Your task to perform on an android device: Open Chrome and go to settings Image 0: 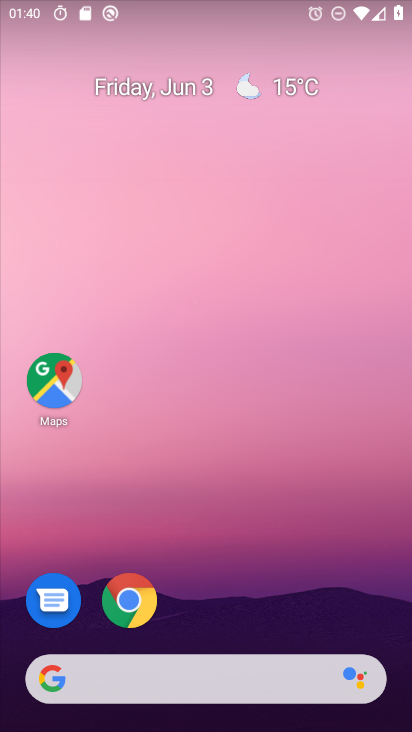
Step 0: click (132, 609)
Your task to perform on an android device: Open Chrome and go to settings Image 1: 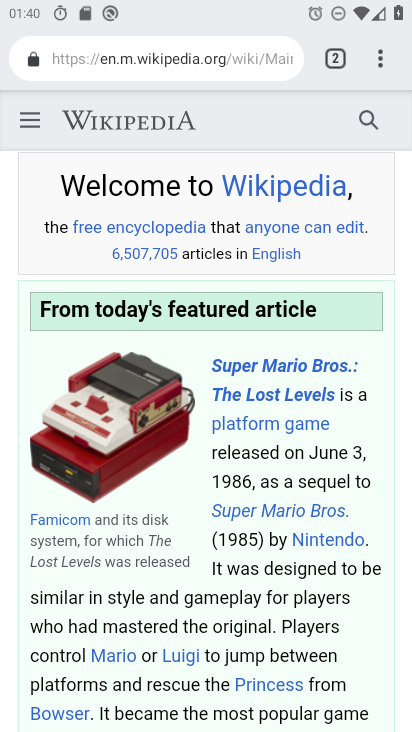
Step 1: click (375, 54)
Your task to perform on an android device: Open Chrome and go to settings Image 2: 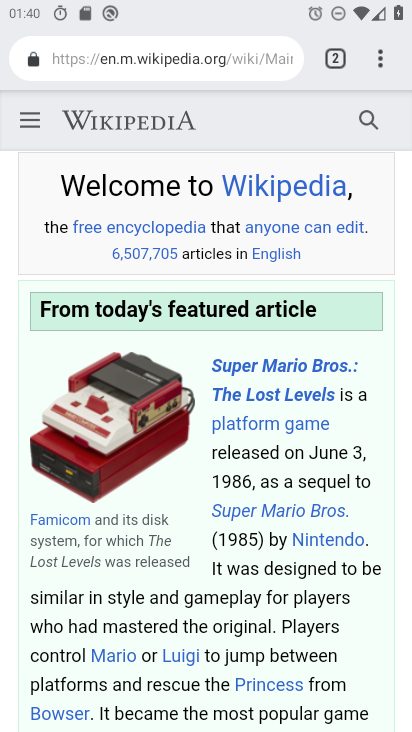
Step 2: click (378, 57)
Your task to perform on an android device: Open Chrome and go to settings Image 3: 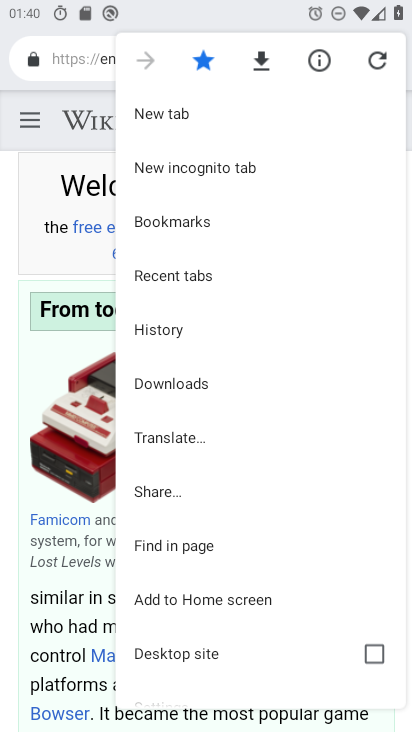
Step 3: drag from (197, 613) to (176, 291)
Your task to perform on an android device: Open Chrome and go to settings Image 4: 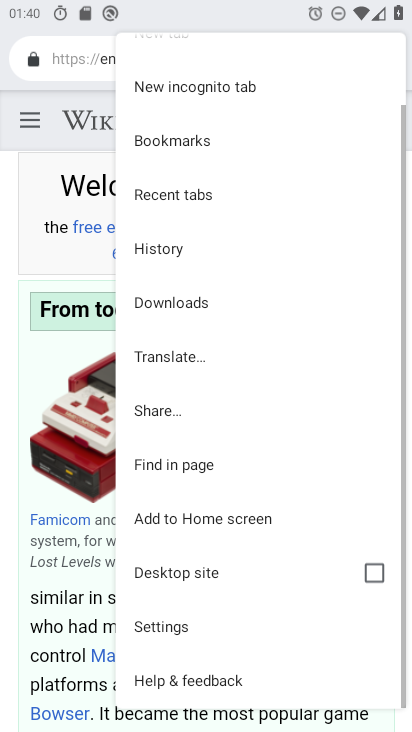
Step 4: click (147, 635)
Your task to perform on an android device: Open Chrome and go to settings Image 5: 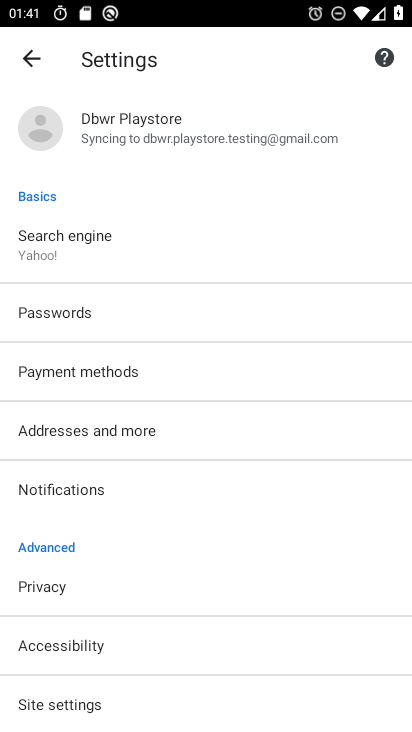
Step 5: task complete